Your task to perform on an android device: Search for vegetarian restaurants on Maps Image 0: 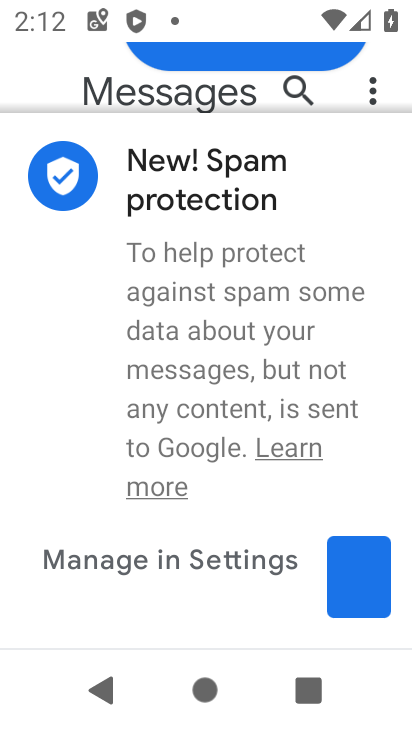
Step 0: press home button
Your task to perform on an android device: Search for vegetarian restaurants on Maps Image 1: 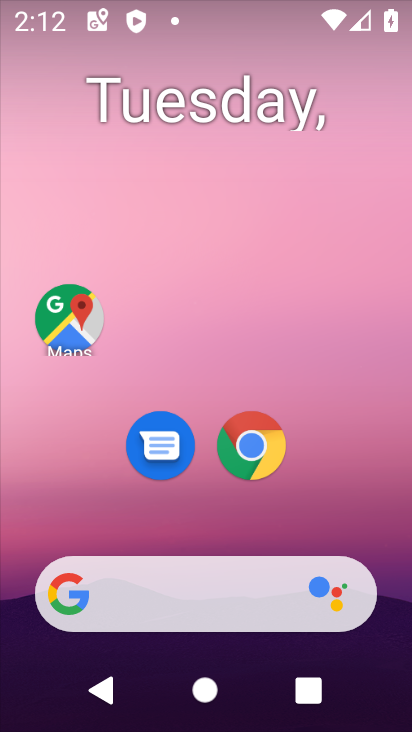
Step 1: click (84, 291)
Your task to perform on an android device: Search for vegetarian restaurants on Maps Image 2: 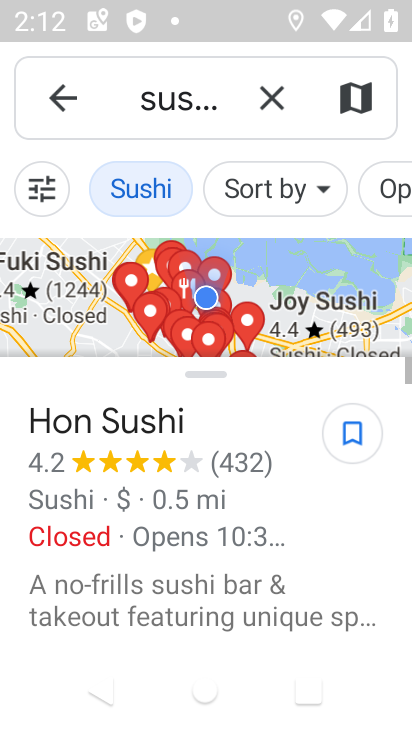
Step 2: click (256, 119)
Your task to perform on an android device: Search for vegetarian restaurants on Maps Image 3: 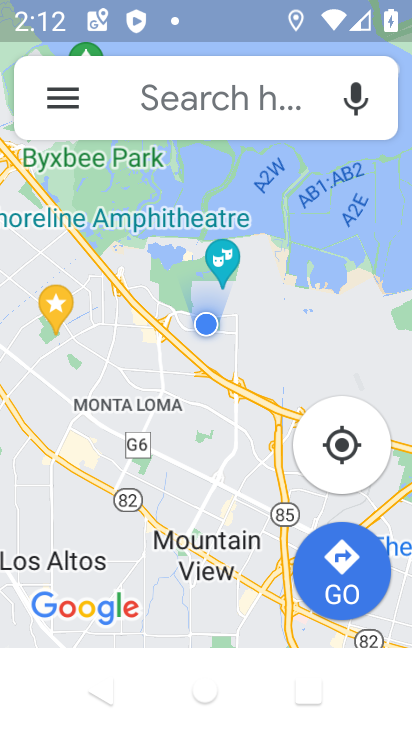
Step 3: click (135, 107)
Your task to perform on an android device: Search for vegetarian restaurants on Maps Image 4: 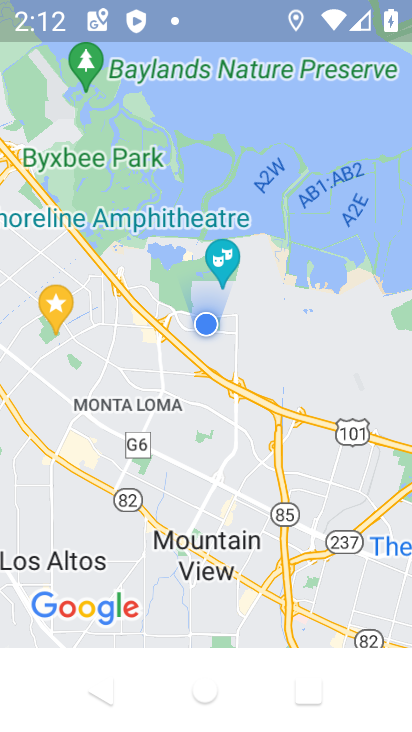
Step 4: press back button
Your task to perform on an android device: Search for vegetarian restaurants on Maps Image 5: 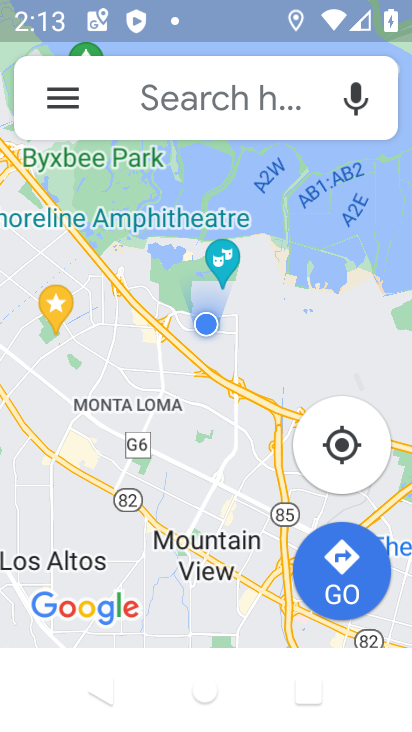
Step 5: click (175, 103)
Your task to perform on an android device: Search for vegetarian restaurants on Maps Image 6: 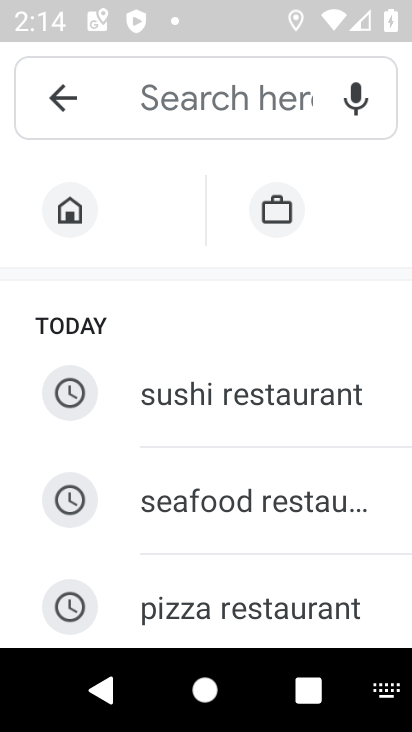
Step 6: type "vegetarian restaurant"
Your task to perform on an android device: Search for vegetarian restaurants on Maps Image 7: 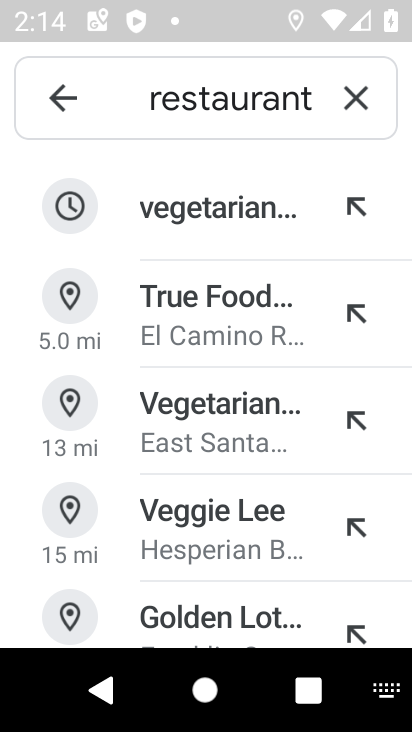
Step 7: click (303, 223)
Your task to perform on an android device: Search for vegetarian restaurants on Maps Image 8: 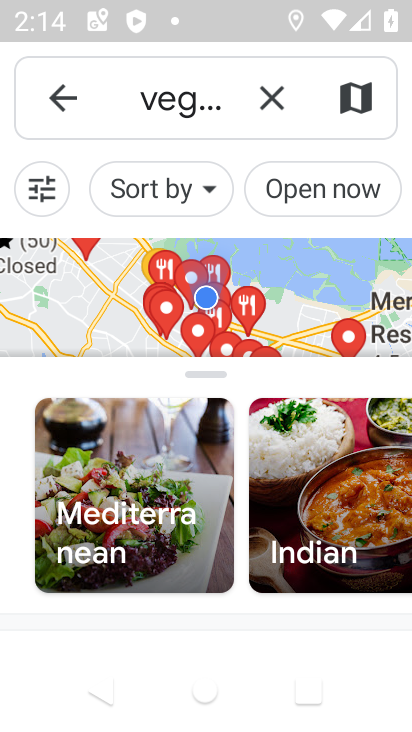
Step 8: task complete